Your task to perform on an android device: find snoozed emails in the gmail app Image 0: 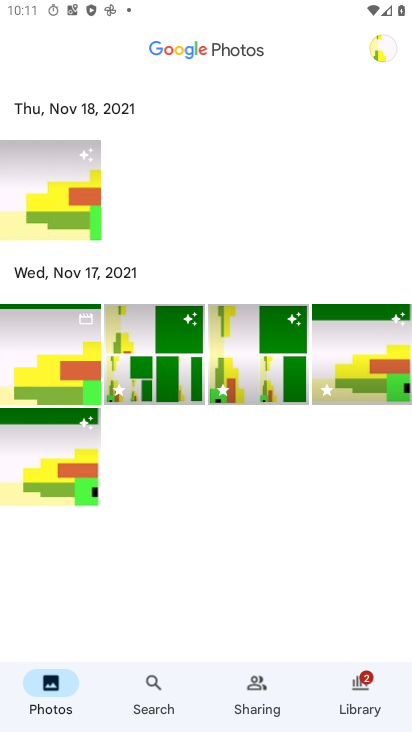
Step 0: press home button
Your task to perform on an android device: find snoozed emails in the gmail app Image 1: 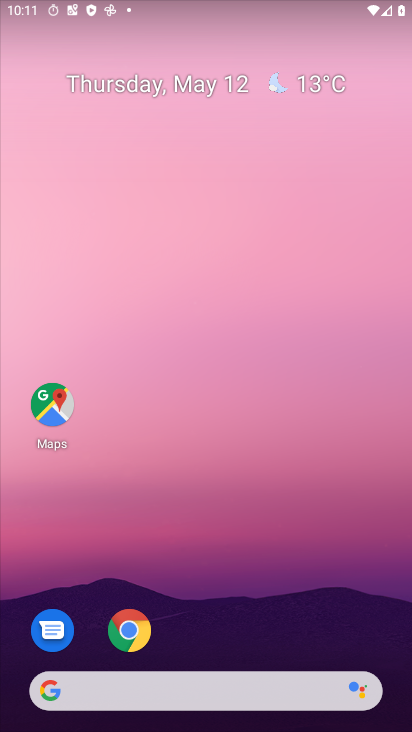
Step 1: drag from (202, 682) to (220, 84)
Your task to perform on an android device: find snoozed emails in the gmail app Image 2: 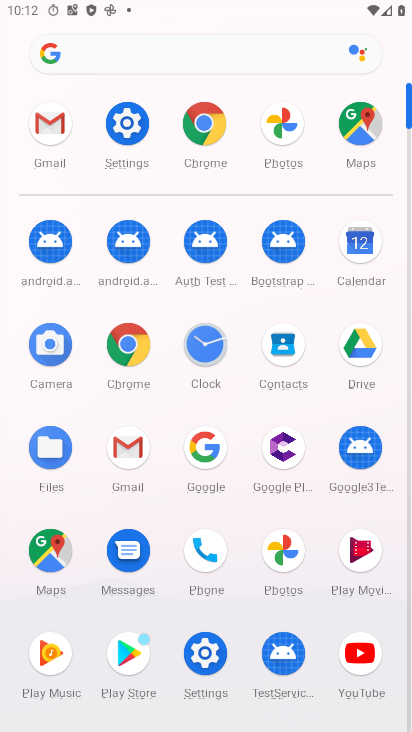
Step 2: click (136, 420)
Your task to perform on an android device: find snoozed emails in the gmail app Image 3: 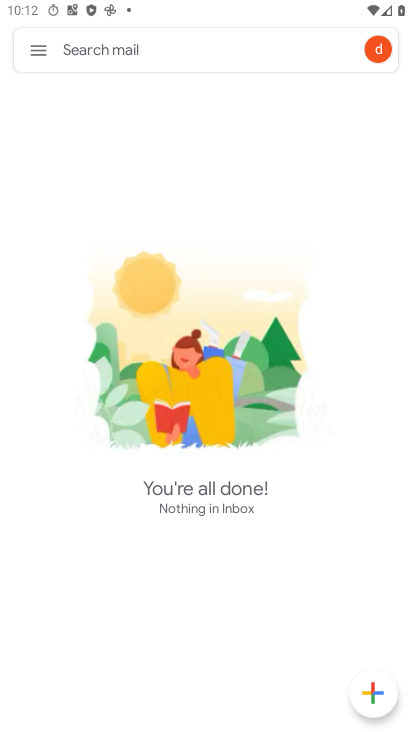
Step 3: click (45, 54)
Your task to perform on an android device: find snoozed emails in the gmail app Image 4: 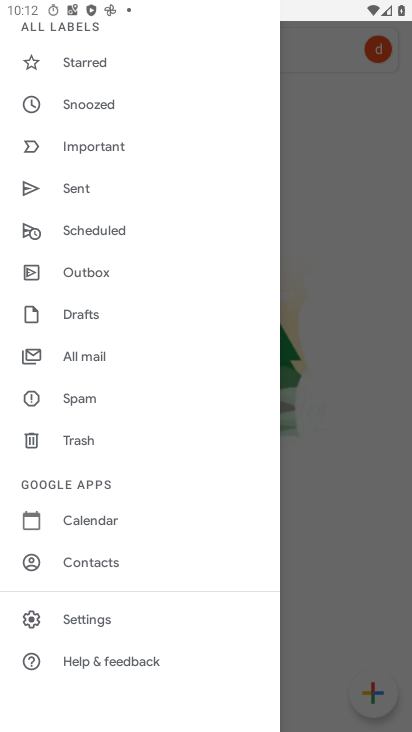
Step 4: click (101, 105)
Your task to perform on an android device: find snoozed emails in the gmail app Image 5: 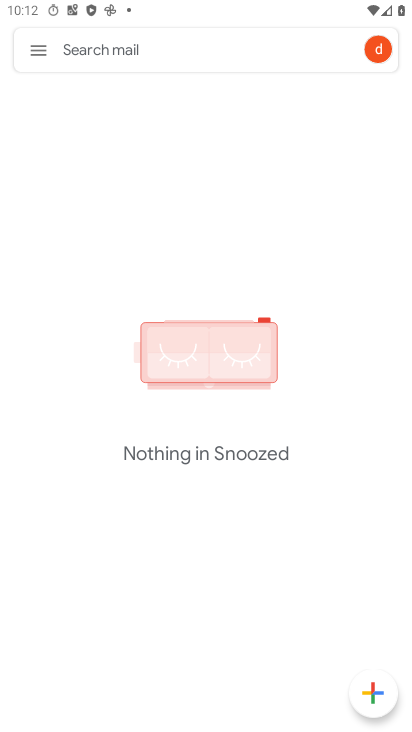
Step 5: task complete